Your task to perform on an android device: Open my contact list Image 0: 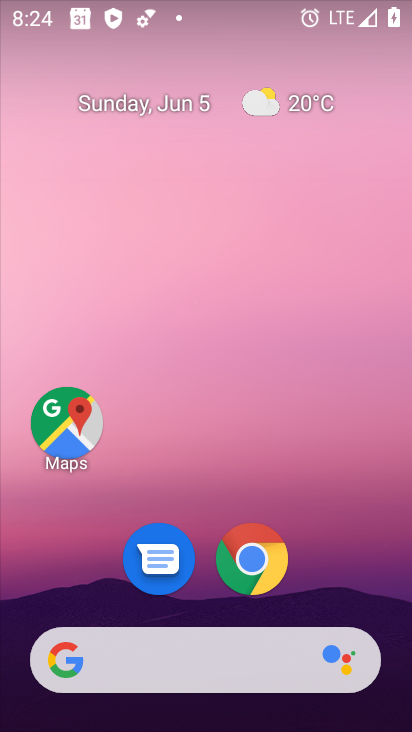
Step 0: drag from (342, 581) to (324, 99)
Your task to perform on an android device: Open my contact list Image 1: 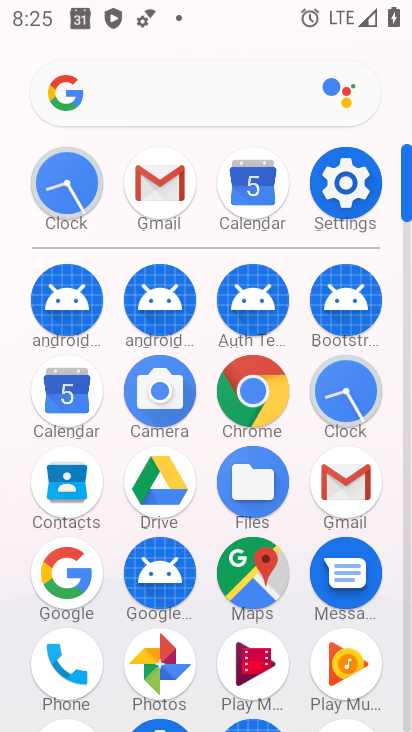
Step 1: click (62, 483)
Your task to perform on an android device: Open my contact list Image 2: 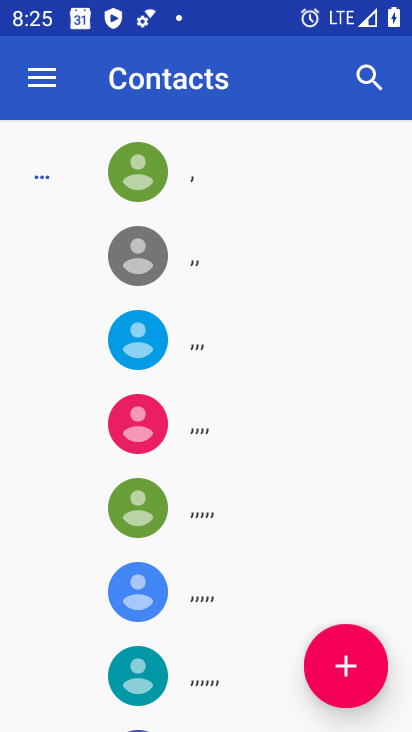
Step 2: task complete